Your task to perform on an android device: see sites visited before in the chrome app Image 0: 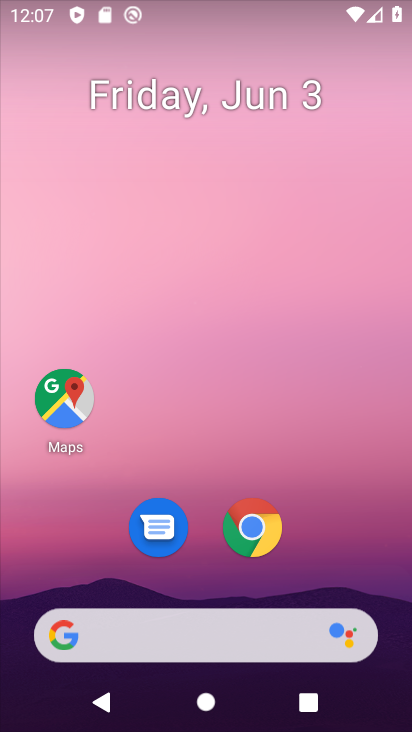
Step 0: drag from (131, 610) to (224, 151)
Your task to perform on an android device: see sites visited before in the chrome app Image 1: 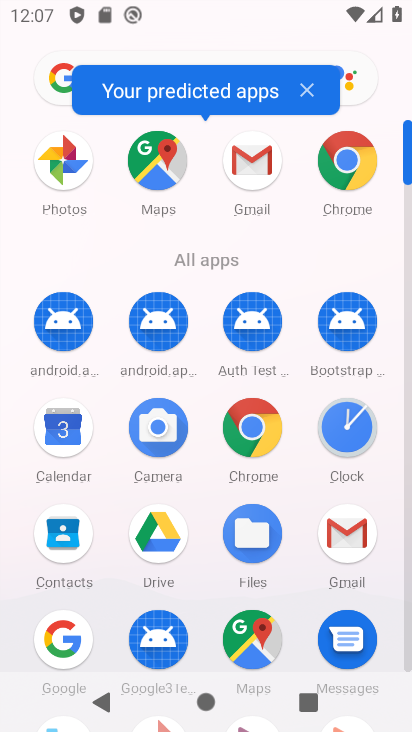
Step 1: click (254, 462)
Your task to perform on an android device: see sites visited before in the chrome app Image 2: 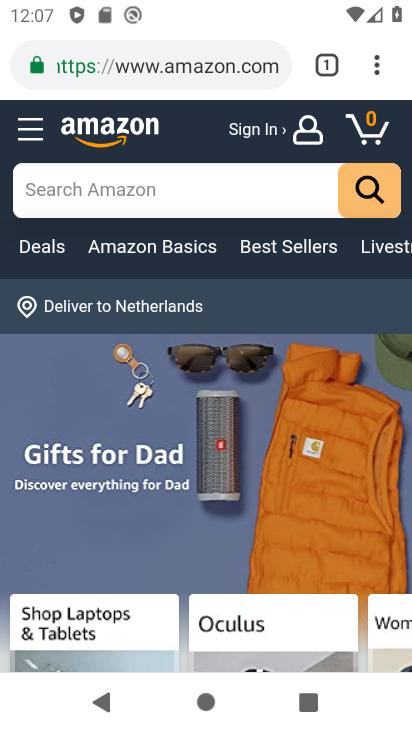
Step 2: task complete